Your task to perform on an android device: turn off javascript in the chrome app Image 0: 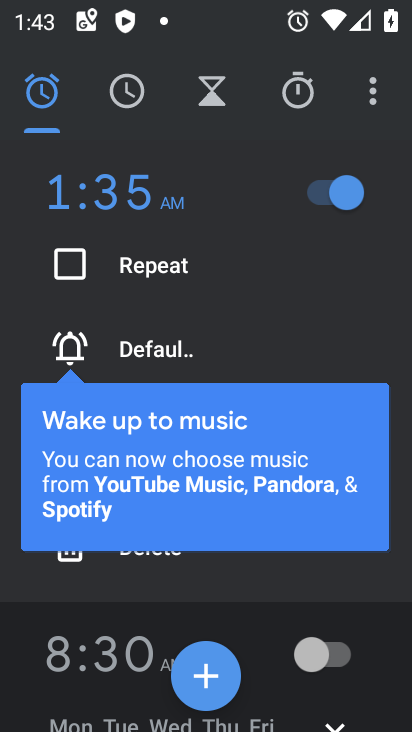
Step 0: press home button
Your task to perform on an android device: turn off javascript in the chrome app Image 1: 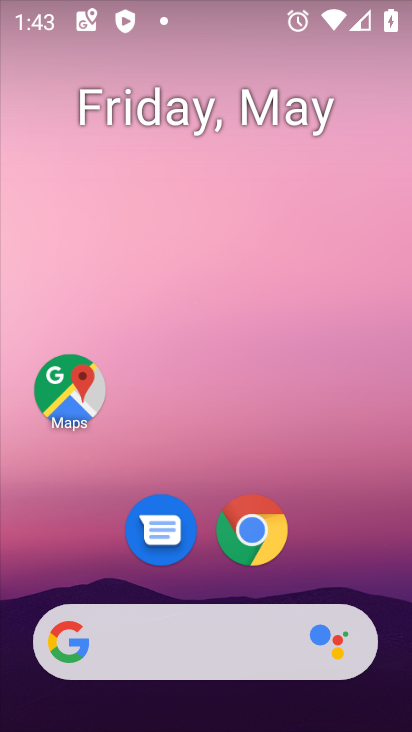
Step 1: click (251, 533)
Your task to perform on an android device: turn off javascript in the chrome app Image 2: 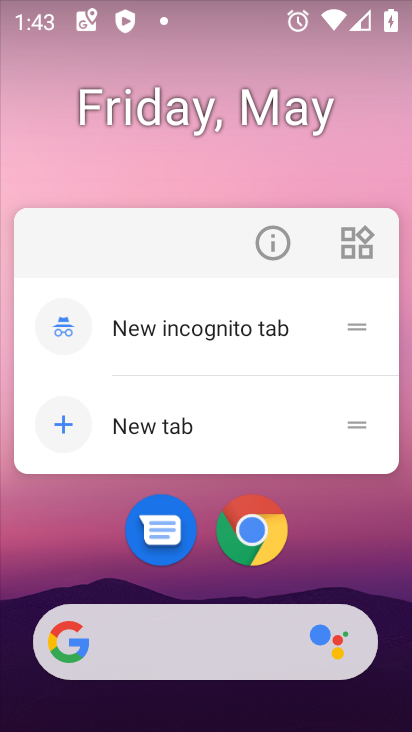
Step 2: click (242, 529)
Your task to perform on an android device: turn off javascript in the chrome app Image 3: 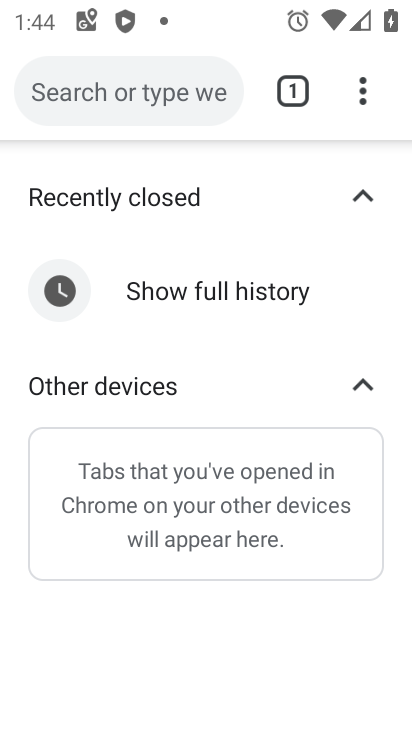
Step 3: click (358, 93)
Your task to perform on an android device: turn off javascript in the chrome app Image 4: 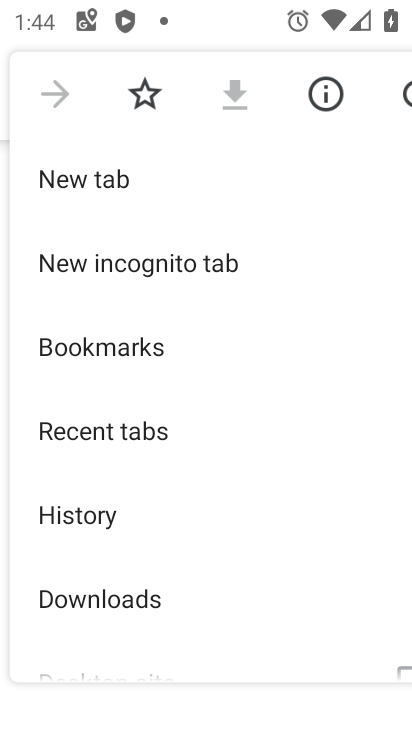
Step 4: drag from (180, 597) to (162, 151)
Your task to perform on an android device: turn off javascript in the chrome app Image 5: 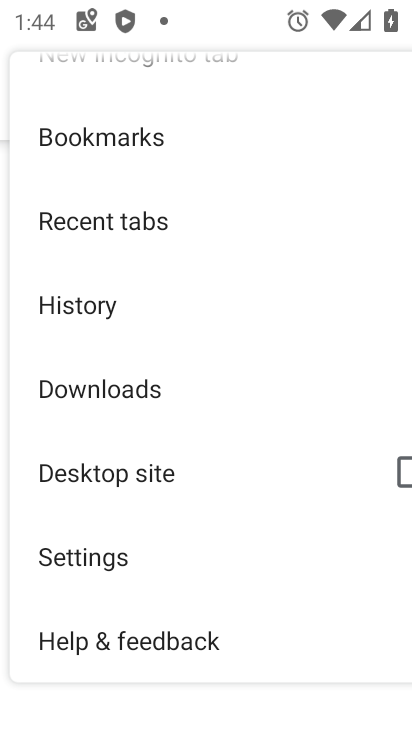
Step 5: click (155, 563)
Your task to perform on an android device: turn off javascript in the chrome app Image 6: 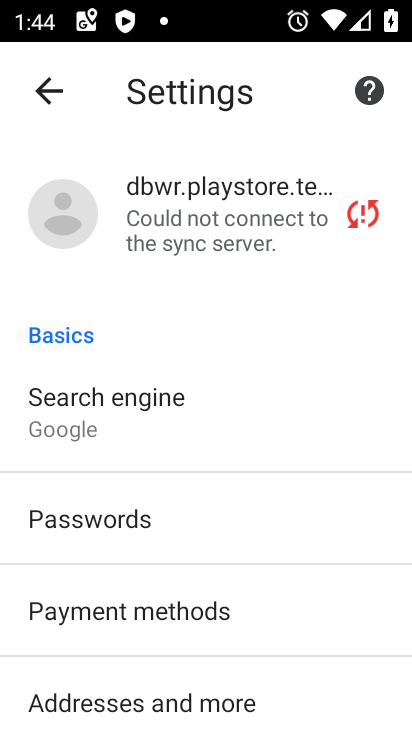
Step 6: drag from (178, 645) to (149, 243)
Your task to perform on an android device: turn off javascript in the chrome app Image 7: 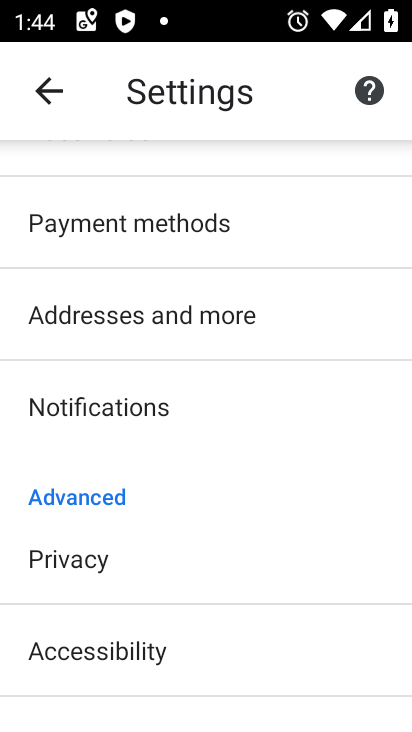
Step 7: drag from (145, 694) to (79, 231)
Your task to perform on an android device: turn off javascript in the chrome app Image 8: 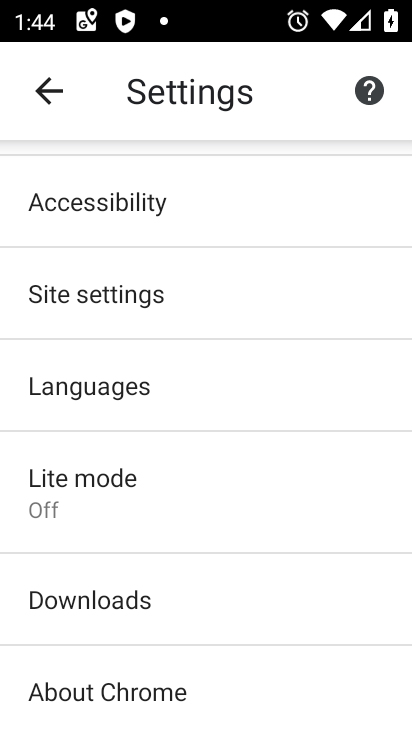
Step 8: click (138, 289)
Your task to perform on an android device: turn off javascript in the chrome app Image 9: 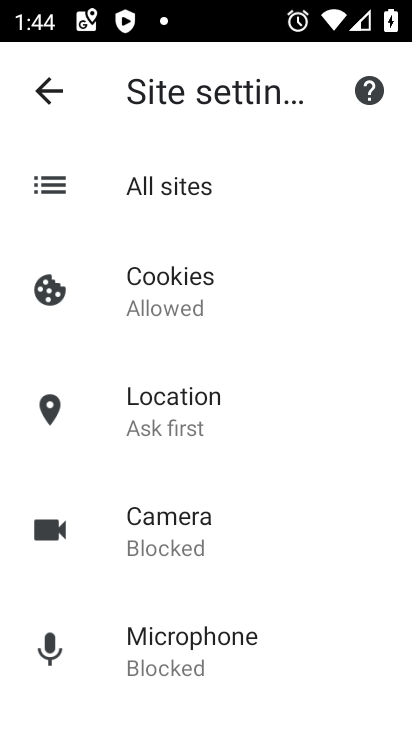
Step 9: drag from (200, 541) to (169, 267)
Your task to perform on an android device: turn off javascript in the chrome app Image 10: 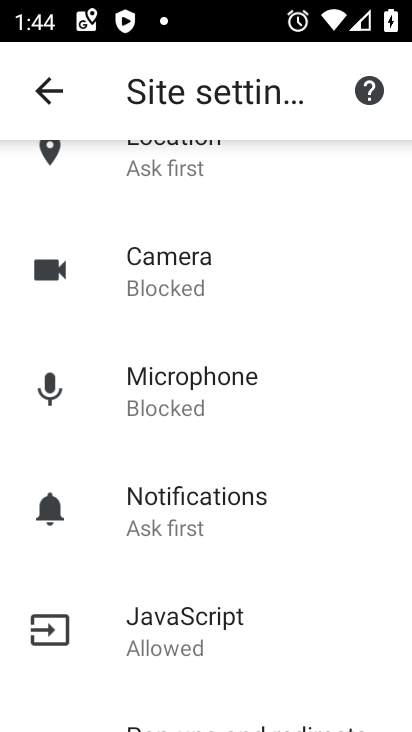
Step 10: click (190, 624)
Your task to perform on an android device: turn off javascript in the chrome app Image 11: 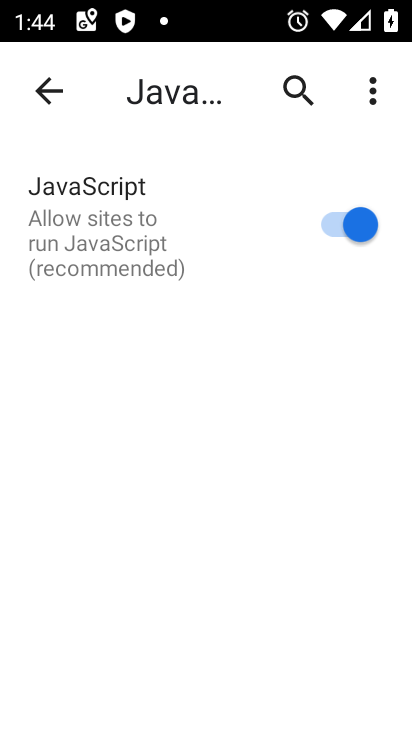
Step 11: click (358, 210)
Your task to perform on an android device: turn off javascript in the chrome app Image 12: 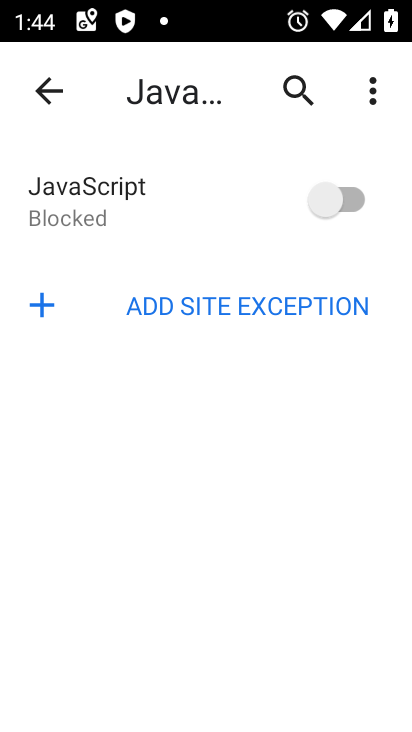
Step 12: task complete